Your task to perform on an android device: set the timer Image 0: 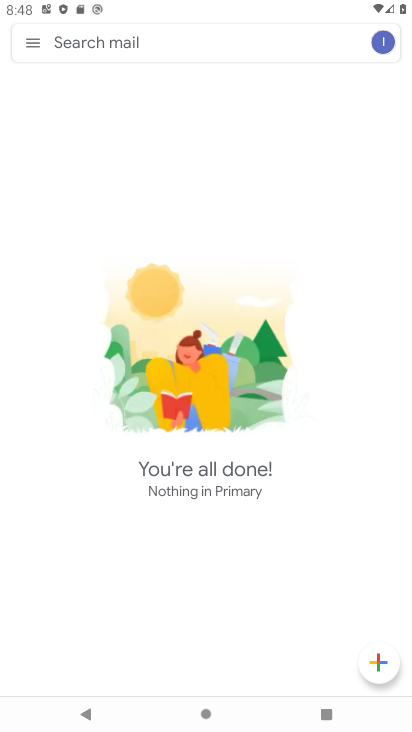
Step 0: press home button
Your task to perform on an android device: set the timer Image 1: 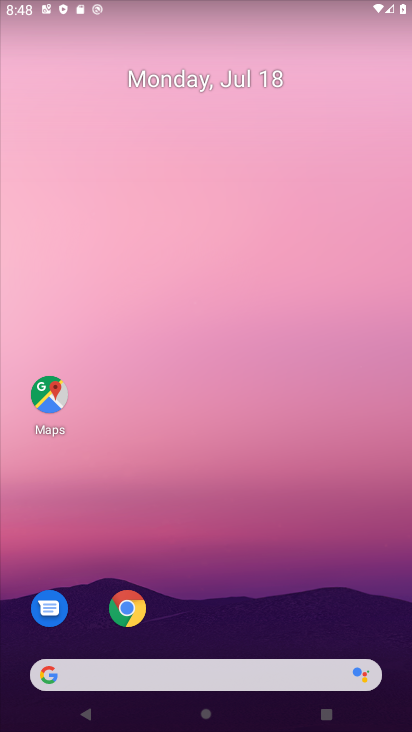
Step 1: drag from (239, 716) to (235, 67)
Your task to perform on an android device: set the timer Image 2: 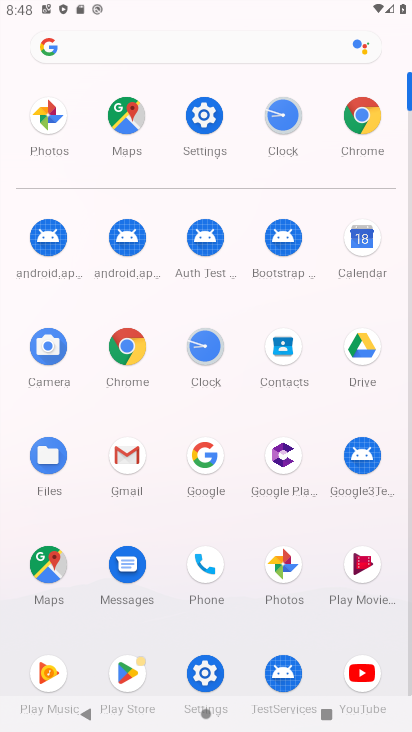
Step 2: click (205, 347)
Your task to perform on an android device: set the timer Image 3: 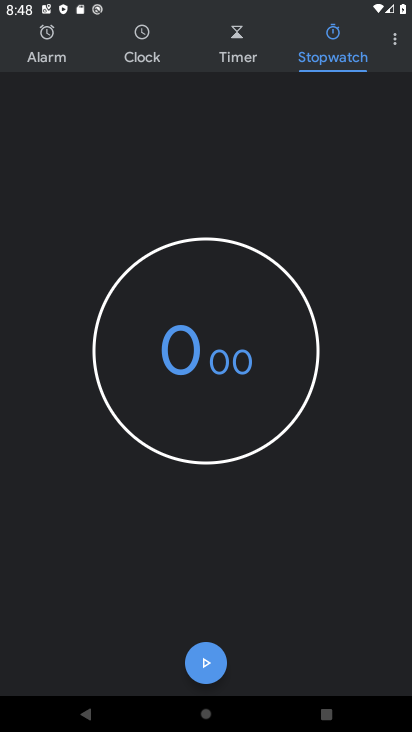
Step 3: click (232, 35)
Your task to perform on an android device: set the timer Image 4: 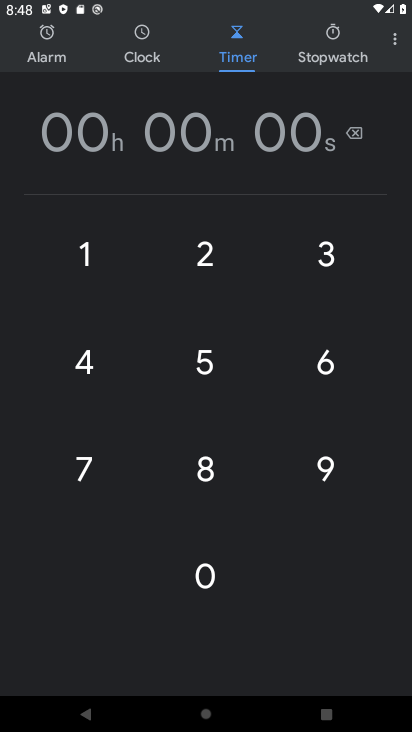
Step 4: click (205, 245)
Your task to perform on an android device: set the timer Image 5: 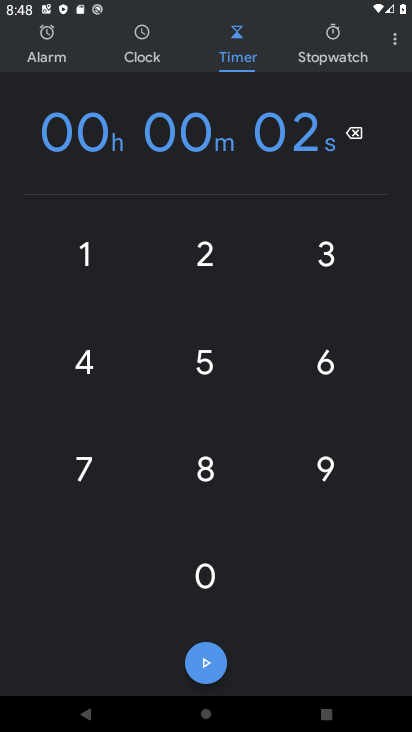
Step 5: click (205, 347)
Your task to perform on an android device: set the timer Image 6: 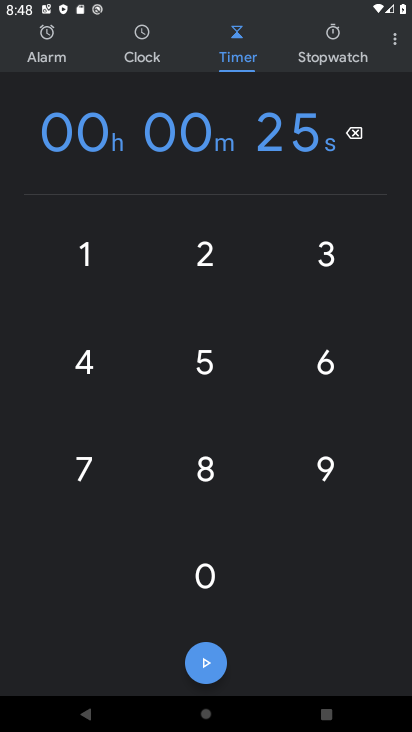
Step 6: click (202, 467)
Your task to perform on an android device: set the timer Image 7: 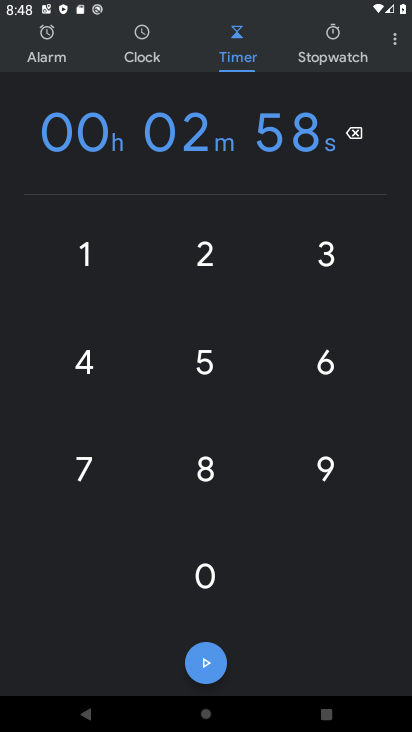
Step 7: click (205, 660)
Your task to perform on an android device: set the timer Image 8: 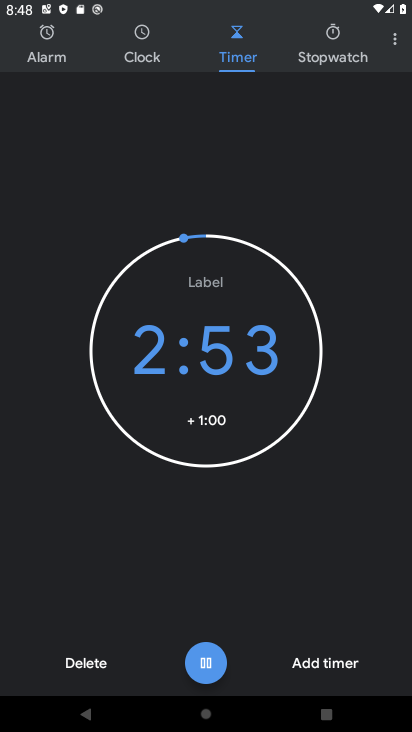
Step 8: task complete